Your task to perform on an android device: all mails in gmail Image 0: 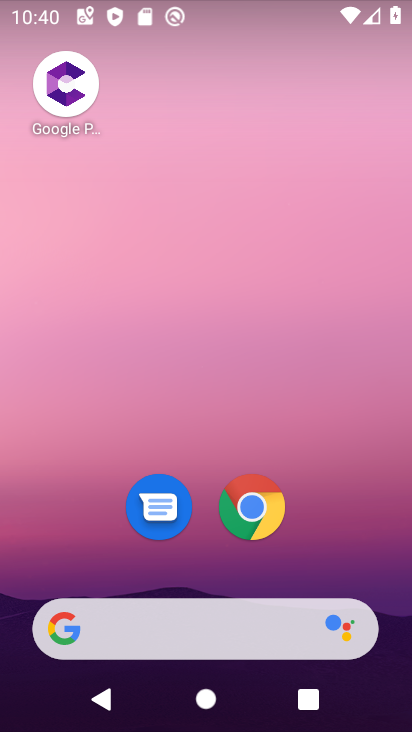
Step 0: drag from (322, 568) to (371, 91)
Your task to perform on an android device: all mails in gmail Image 1: 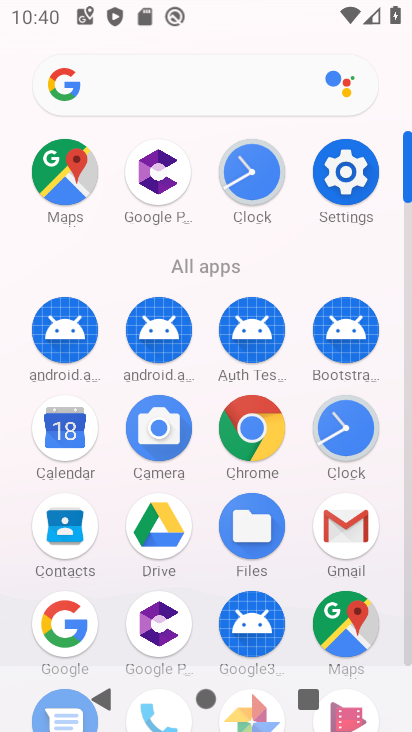
Step 1: click (341, 507)
Your task to perform on an android device: all mails in gmail Image 2: 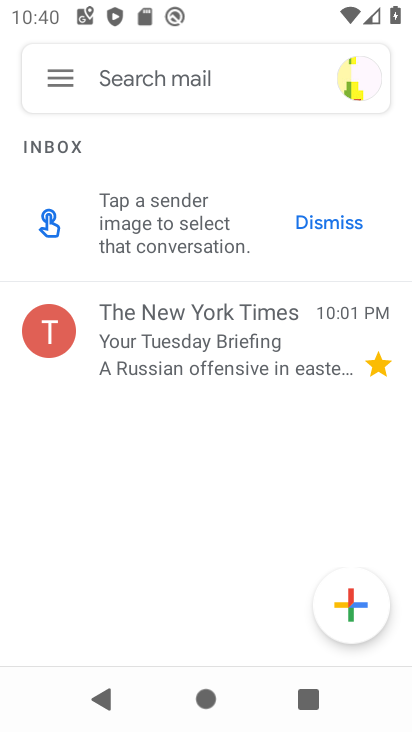
Step 2: click (60, 82)
Your task to perform on an android device: all mails in gmail Image 3: 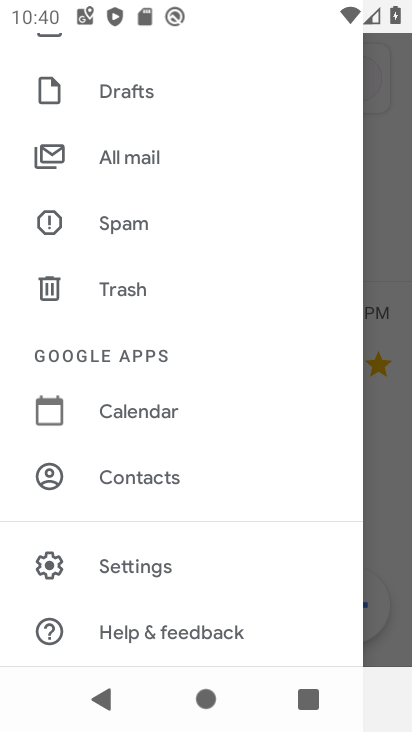
Step 3: click (107, 142)
Your task to perform on an android device: all mails in gmail Image 4: 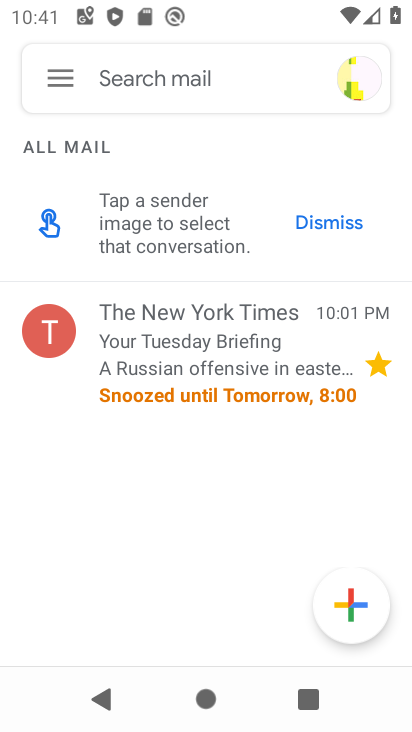
Step 4: task complete